Your task to perform on an android device: Search for pizza restaurants on Maps Image 0: 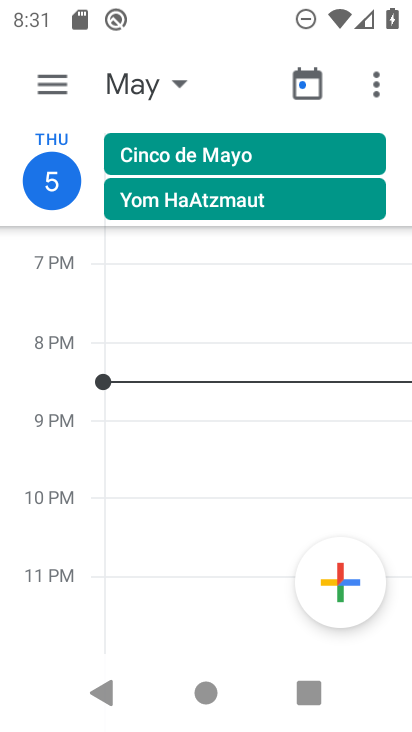
Step 0: press home button
Your task to perform on an android device: Search for pizza restaurants on Maps Image 1: 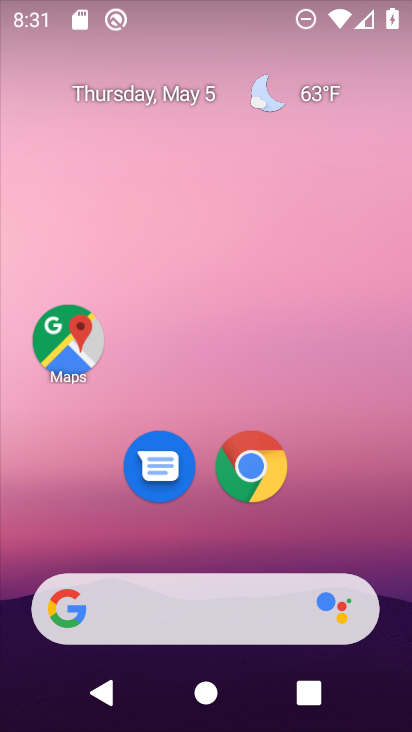
Step 1: click (70, 375)
Your task to perform on an android device: Search for pizza restaurants on Maps Image 2: 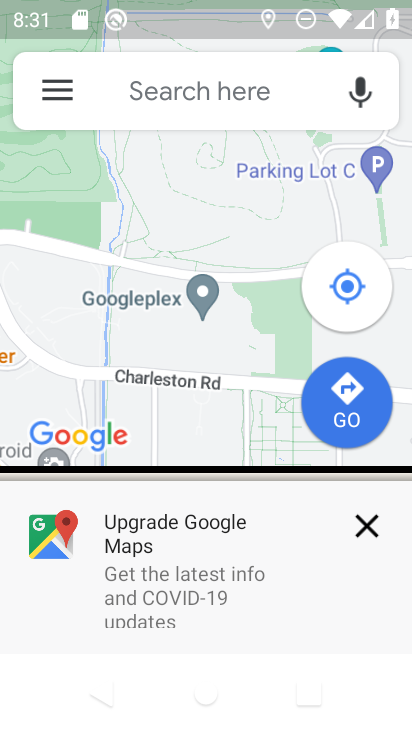
Step 2: click (151, 85)
Your task to perform on an android device: Search for pizza restaurants on Maps Image 3: 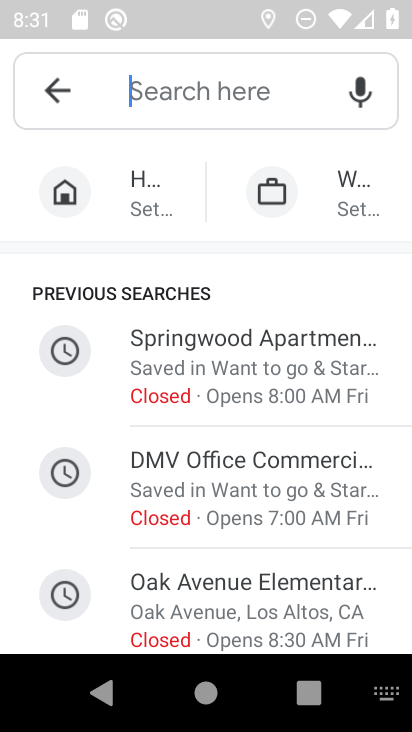
Step 3: type "pizza restaurants"
Your task to perform on an android device: Search for pizza restaurants on Maps Image 4: 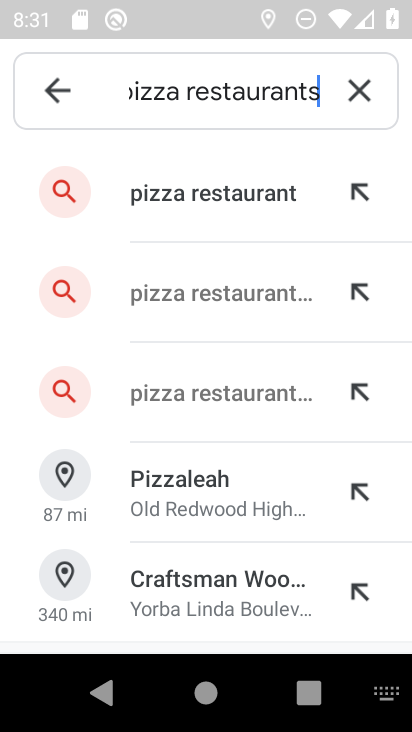
Step 4: click (188, 197)
Your task to perform on an android device: Search for pizza restaurants on Maps Image 5: 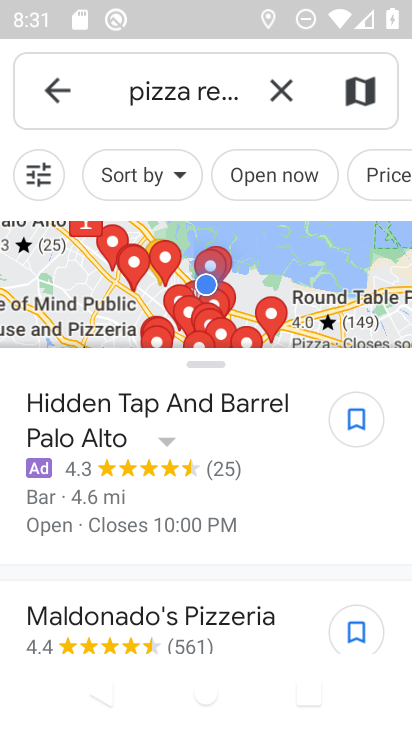
Step 5: task complete